Your task to perform on an android device: create a new album in the google photos Image 0: 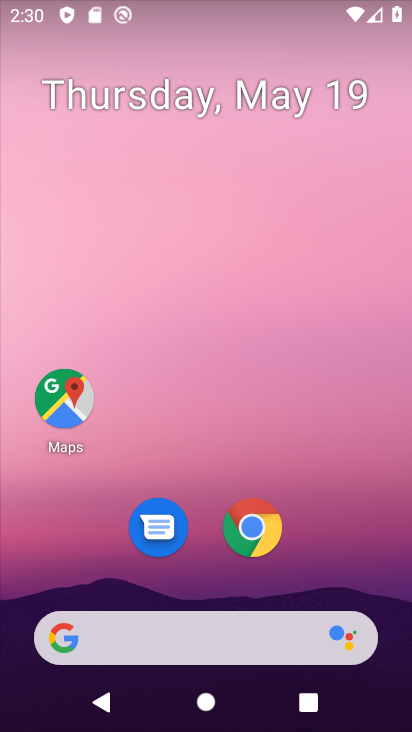
Step 0: drag from (348, 681) to (176, 79)
Your task to perform on an android device: create a new album in the google photos Image 1: 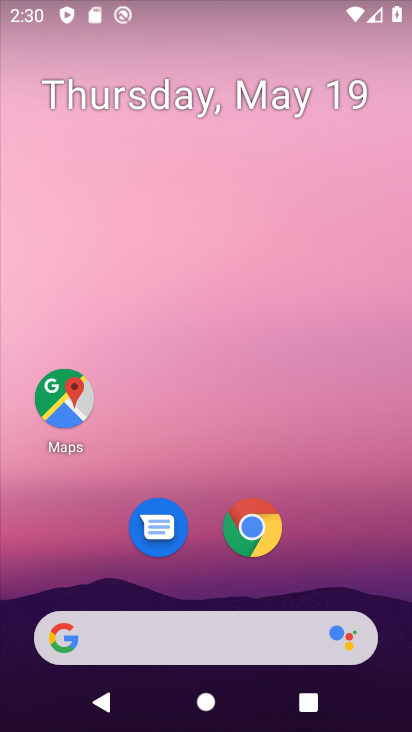
Step 1: drag from (232, 602) to (192, 271)
Your task to perform on an android device: create a new album in the google photos Image 2: 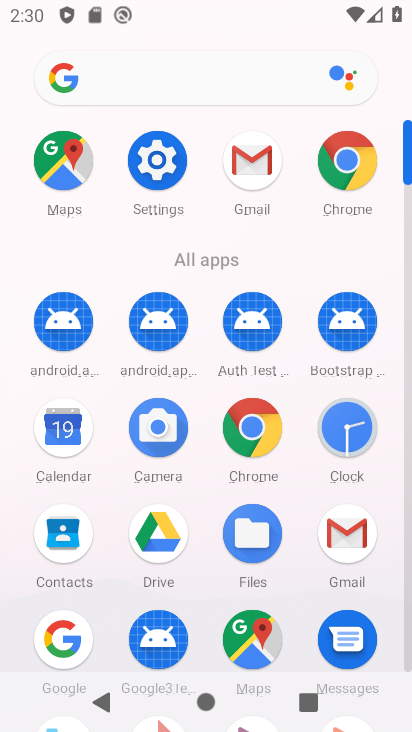
Step 2: drag from (232, 534) to (173, 130)
Your task to perform on an android device: create a new album in the google photos Image 3: 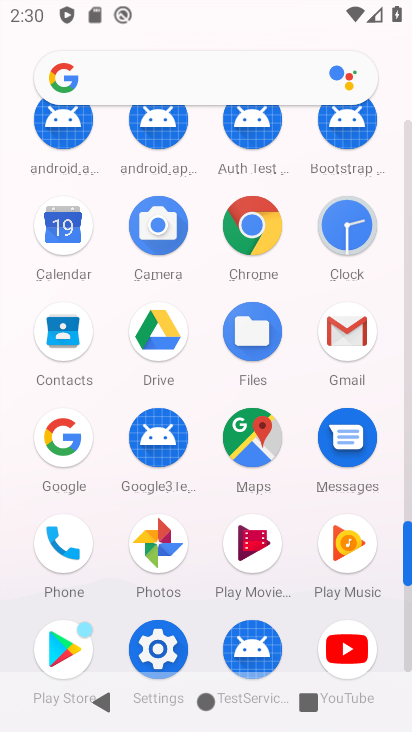
Step 3: drag from (282, 453) to (242, 65)
Your task to perform on an android device: create a new album in the google photos Image 4: 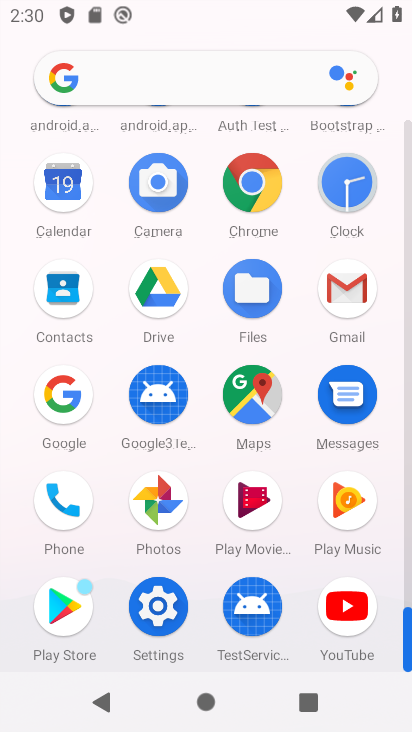
Step 4: click (153, 490)
Your task to perform on an android device: create a new album in the google photos Image 5: 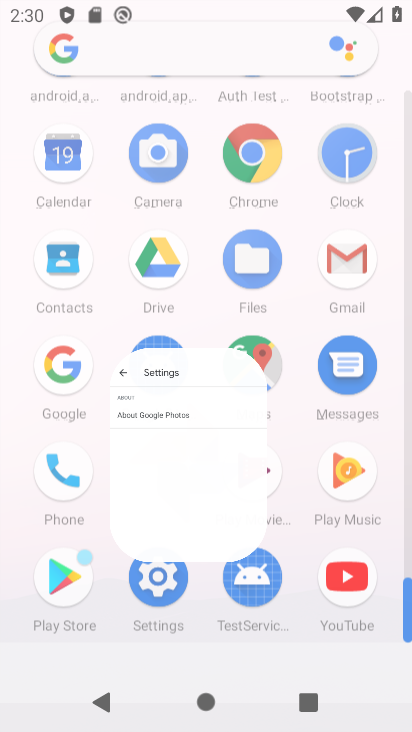
Step 5: click (159, 506)
Your task to perform on an android device: create a new album in the google photos Image 6: 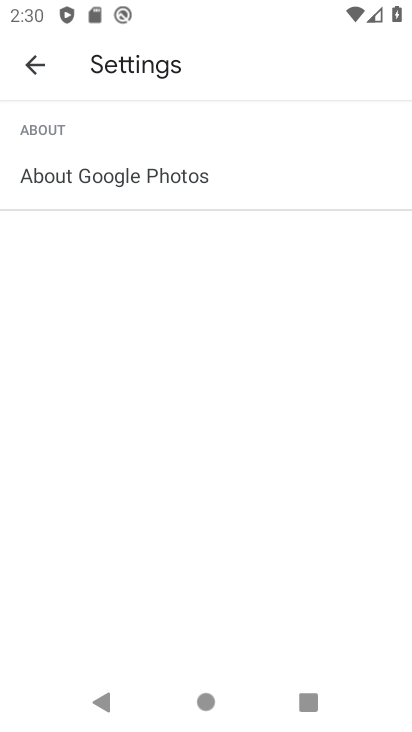
Step 6: click (23, 45)
Your task to perform on an android device: create a new album in the google photos Image 7: 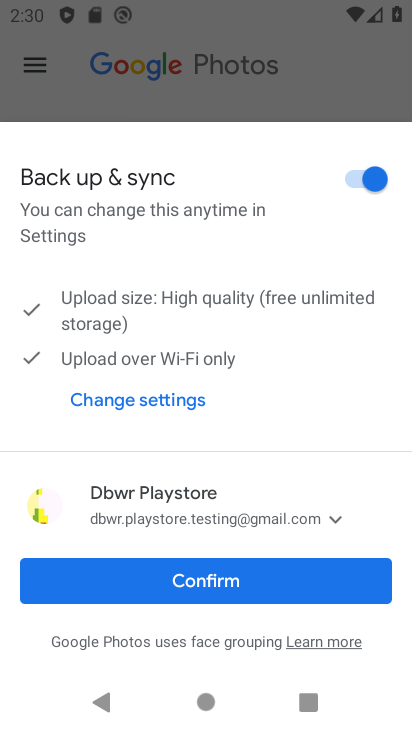
Step 7: click (225, 577)
Your task to perform on an android device: create a new album in the google photos Image 8: 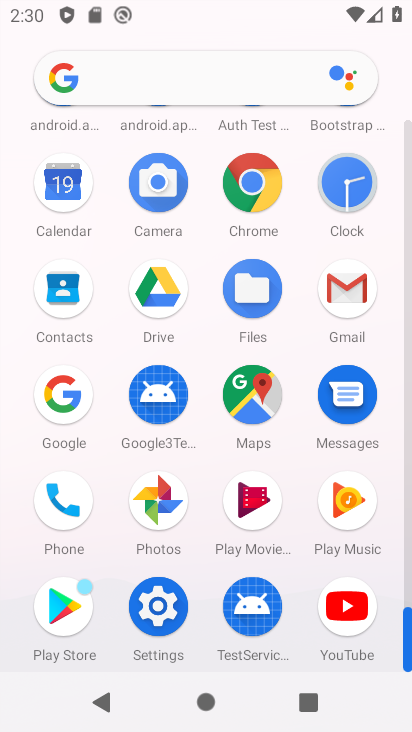
Step 8: click (159, 498)
Your task to perform on an android device: create a new album in the google photos Image 9: 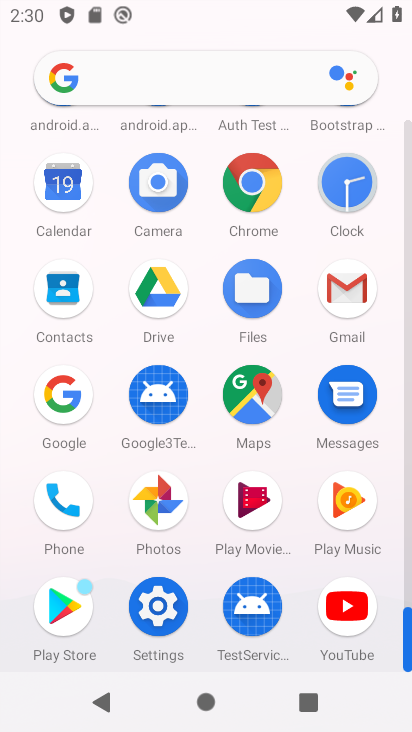
Step 9: click (159, 498)
Your task to perform on an android device: create a new album in the google photos Image 10: 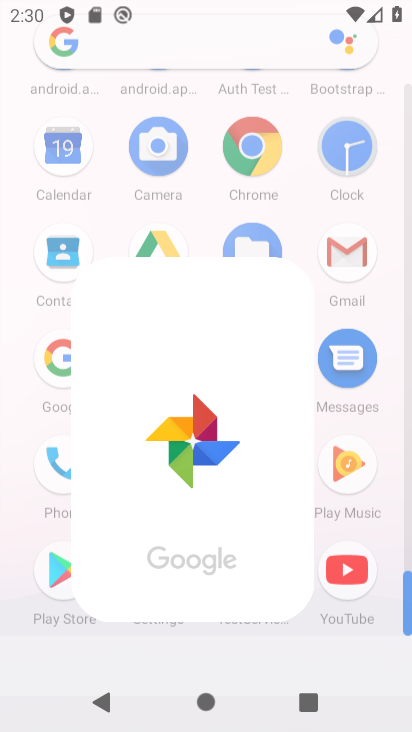
Step 10: click (159, 499)
Your task to perform on an android device: create a new album in the google photos Image 11: 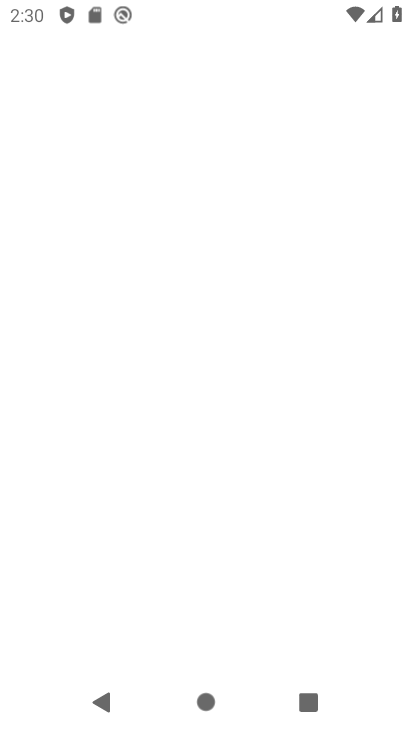
Step 11: click (161, 497)
Your task to perform on an android device: create a new album in the google photos Image 12: 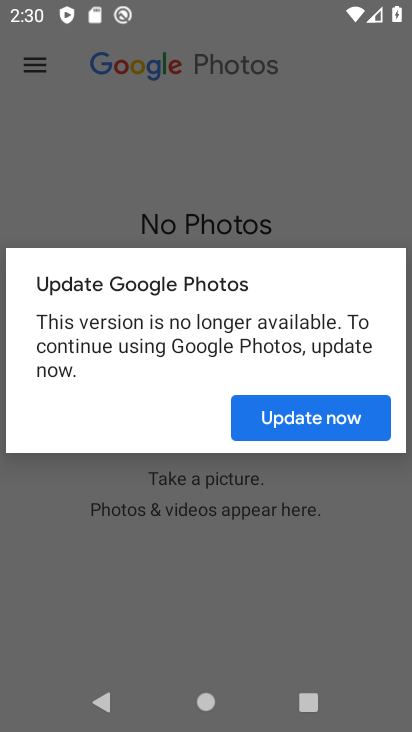
Step 12: task complete